Your task to perform on an android device: Search for Italian restaurants on Maps Image 0: 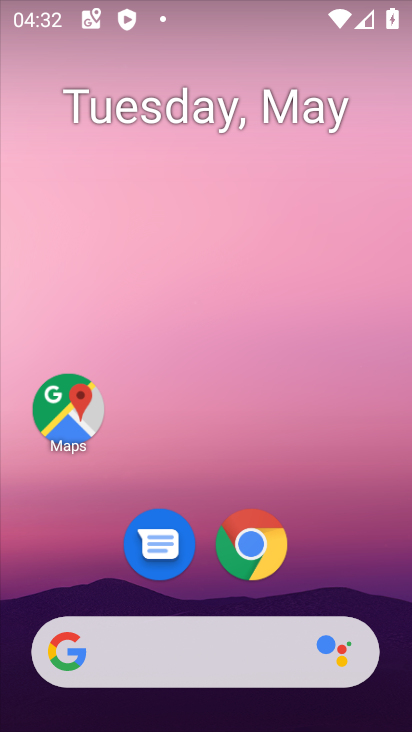
Step 0: click (81, 417)
Your task to perform on an android device: Search for Italian restaurants on Maps Image 1: 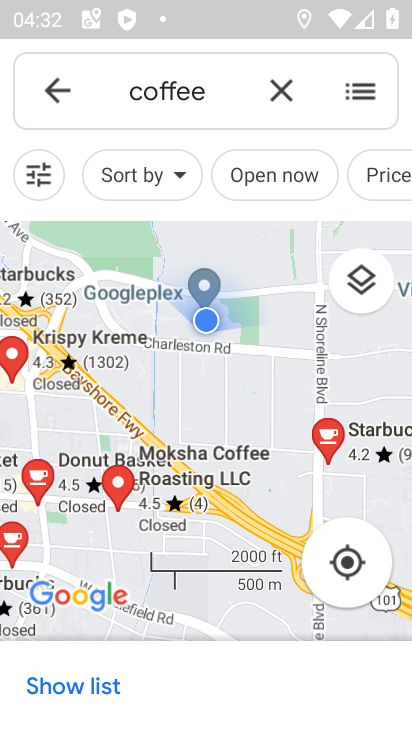
Step 1: click (285, 91)
Your task to perform on an android device: Search for Italian restaurants on Maps Image 2: 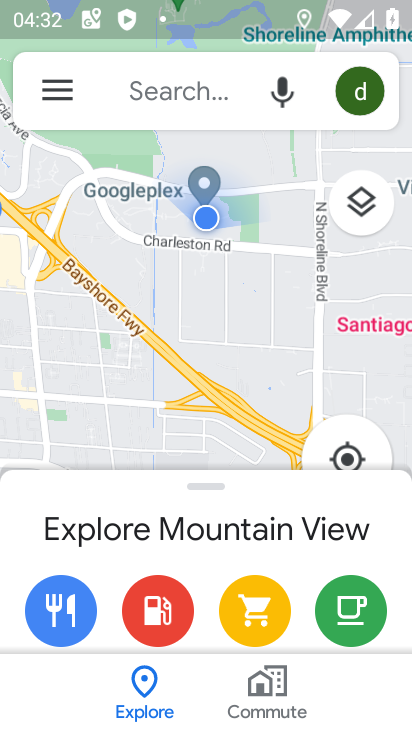
Step 2: click (203, 87)
Your task to perform on an android device: Search for Italian restaurants on Maps Image 3: 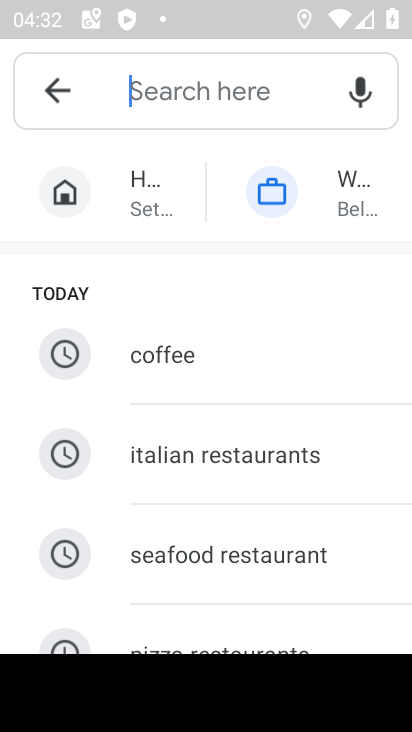
Step 3: click (221, 454)
Your task to perform on an android device: Search for Italian restaurants on Maps Image 4: 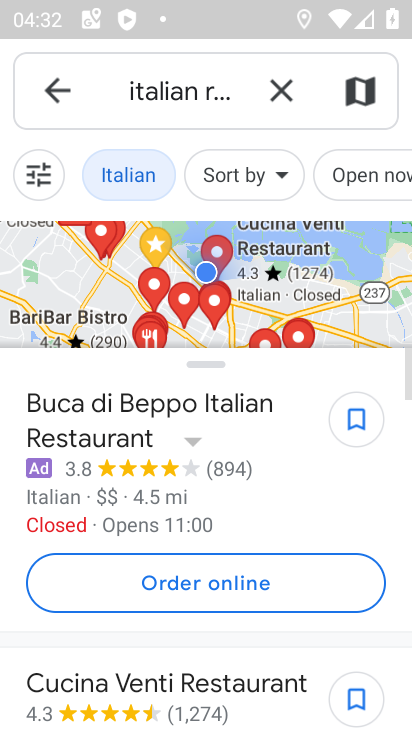
Step 4: task complete